Your task to perform on an android device: Search for Mexican restaurants on Maps Image 0: 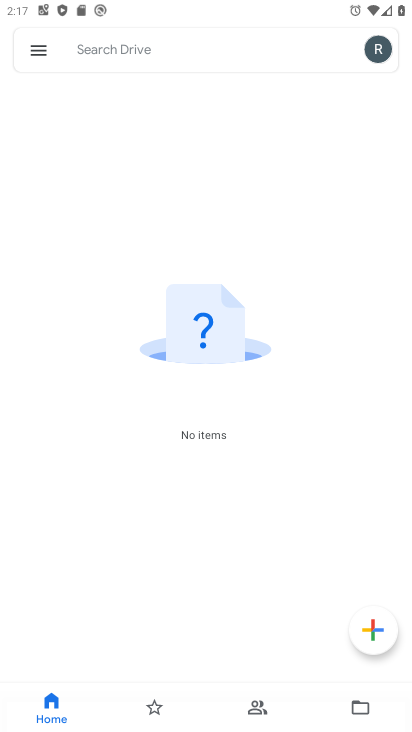
Step 0: press home button
Your task to perform on an android device: Search for Mexican restaurants on Maps Image 1: 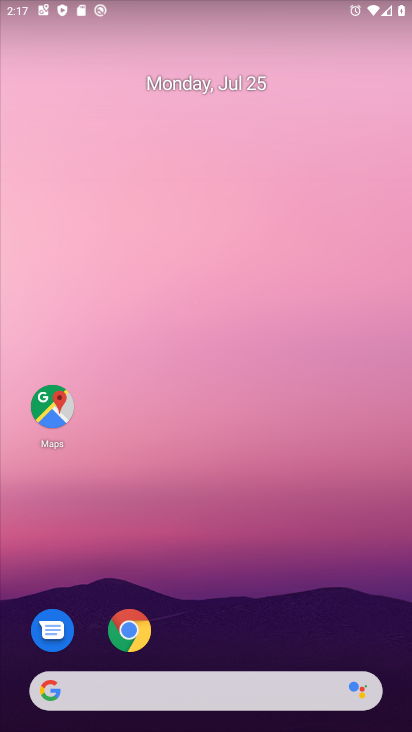
Step 1: click (39, 398)
Your task to perform on an android device: Search for Mexican restaurants on Maps Image 2: 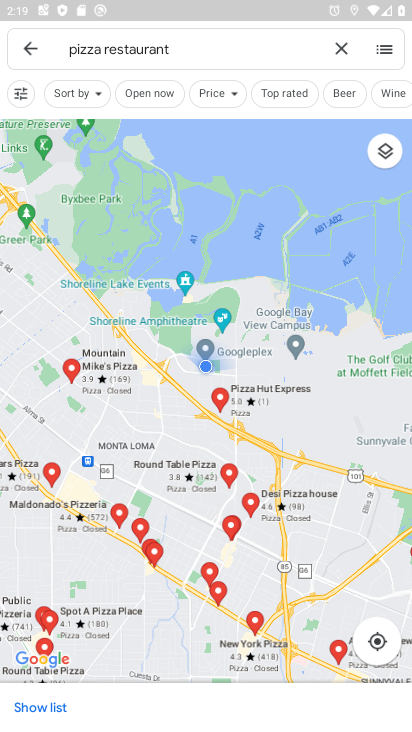
Step 2: click (330, 50)
Your task to perform on an android device: Search for Mexican restaurants on Maps Image 3: 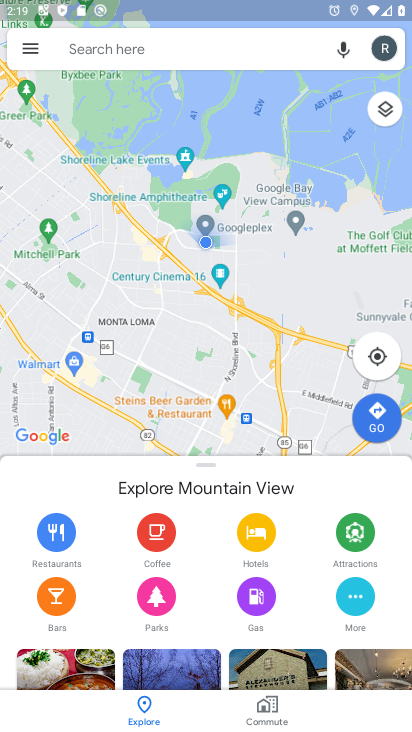
Step 3: click (198, 54)
Your task to perform on an android device: Search for Mexican restaurants on Maps Image 4: 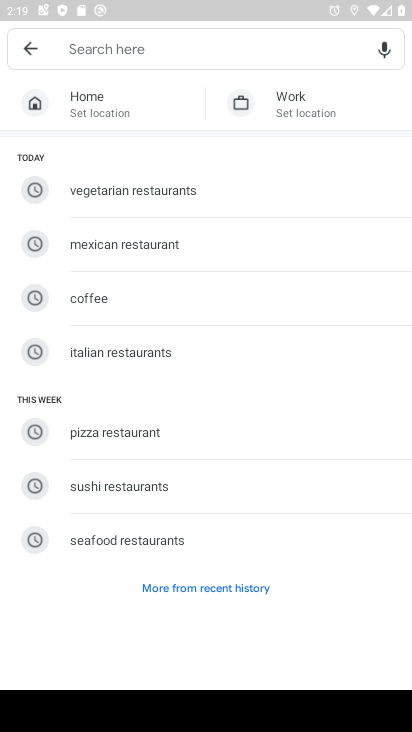
Step 4: click (151, 256)
Your task to perform on an android device: Search for Mexican restaurants on Maps Image 5: 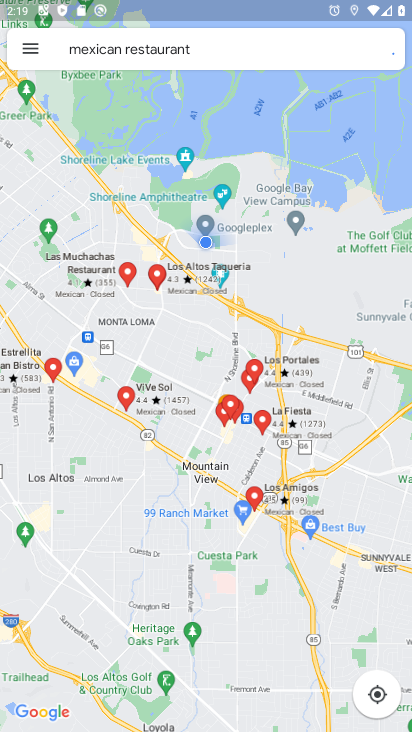
Step 5: task complete